Your task to perform on an android device: change your default location settings in chrome Image 0: 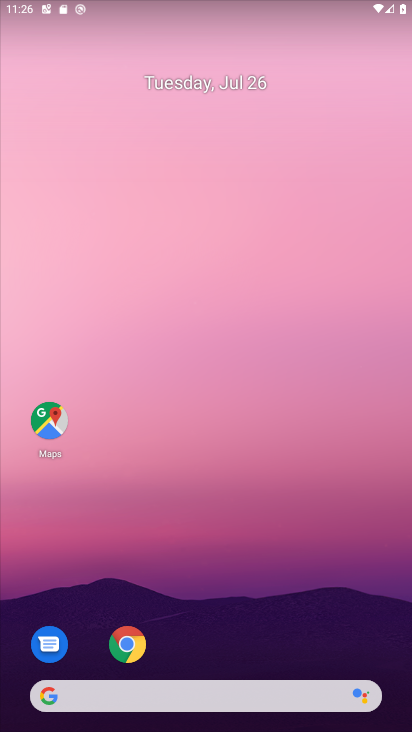
Step 0: click (121, 642)
Your task to perform on an android device: change your default location settings in chrome Image 1: 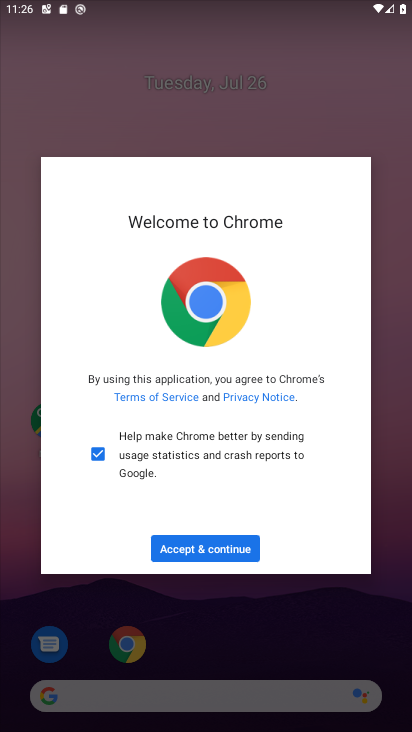
Step 1: click (211, 538)
Your task to perform on an android device: change your default location settings in chrome Image 2: 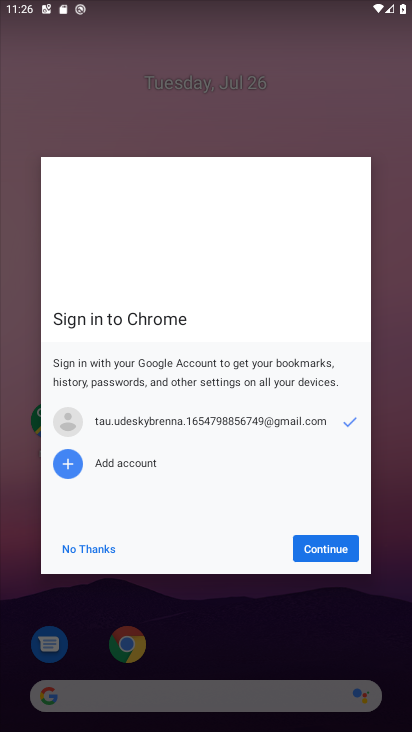
Step 2: click (323, 545)
Your task to perform on an android device: change your default location settings in chrome Image 3: 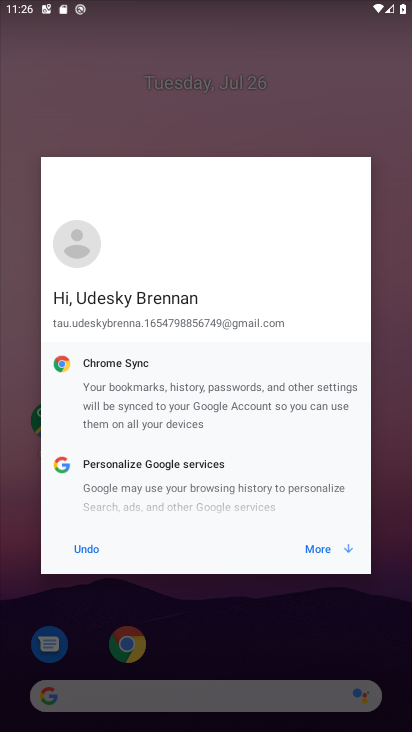
Step 3: click (323, 545)
Your task to perform on an android device: change your default location settings in chrome Image 4: 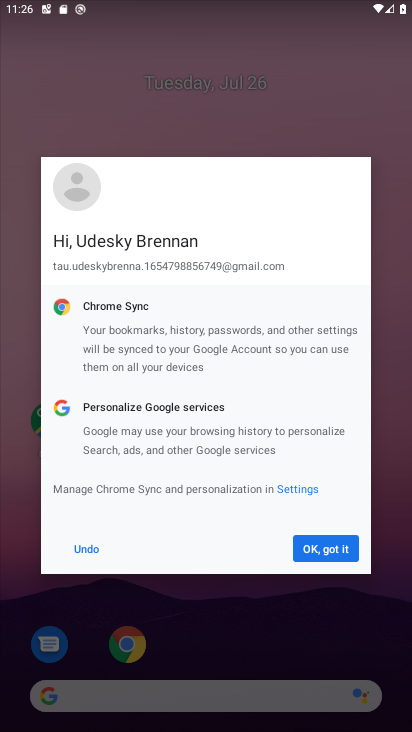
Step 4: click (323, 545)
Your task to perform on an android device: change your default location settings in chrome Image 5: 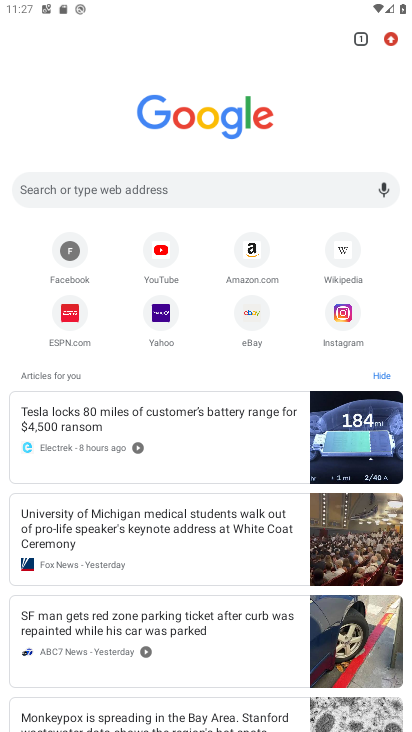
Step 5: click (392, 40)
Your task to perform on an android device: change your default location settings in chrome Image 6: 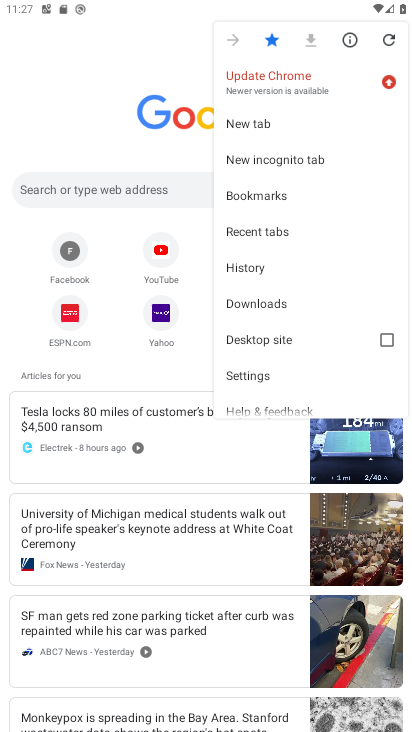
Step 6: click (241, 370)
Your task to perform on an android device: change your default location settings in chrome Image 7: 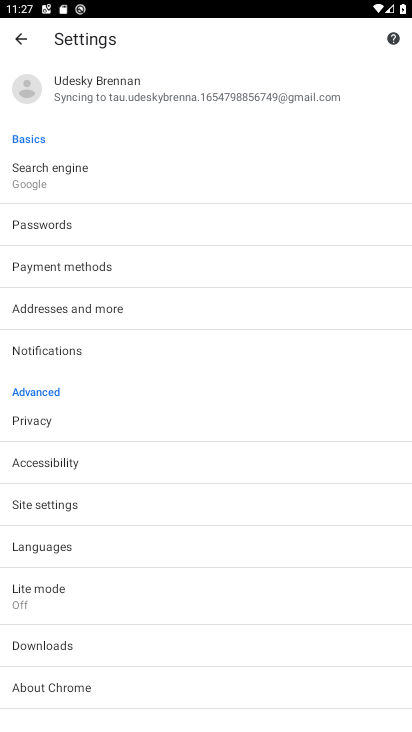
Step 7: drag from (127, 655) to (132, 352)
Your task to perform on an android device: change your default location settings in chrome Image 8: 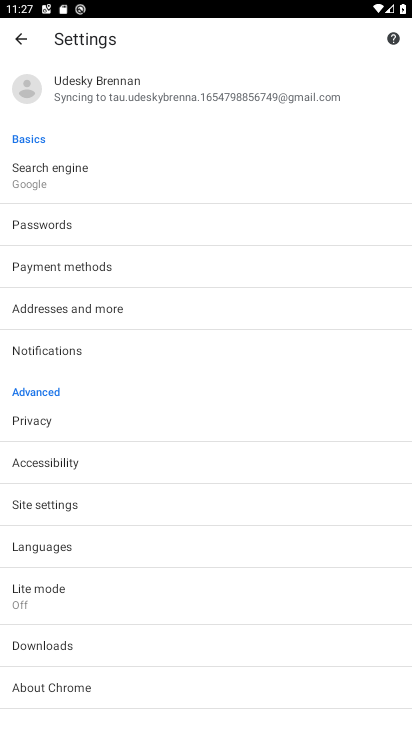
Step 8: click (75, 501)
Your task to perform on an android device: change your default location settings in chrome Image 9: 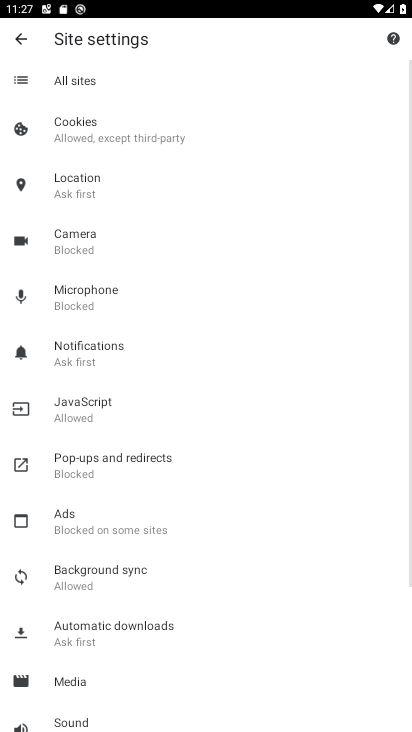
Step 9: click (99, 183)
Your task to perform on an android device: change your default location settings in chrome Image 10: 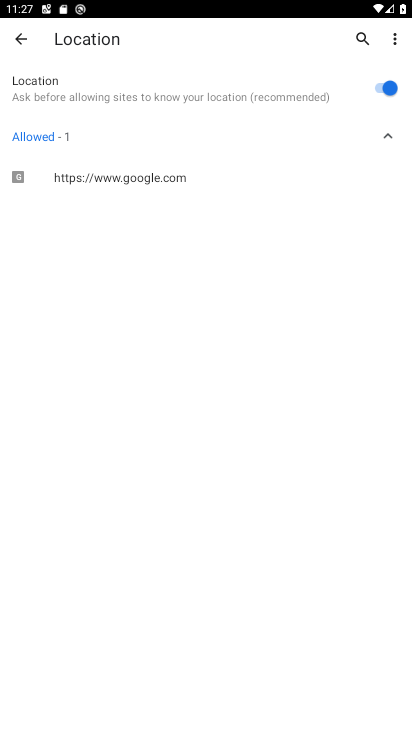
Step 10: click (381, 84)
Your task to perform on an android device: change your default location settings in chrome Image 11: 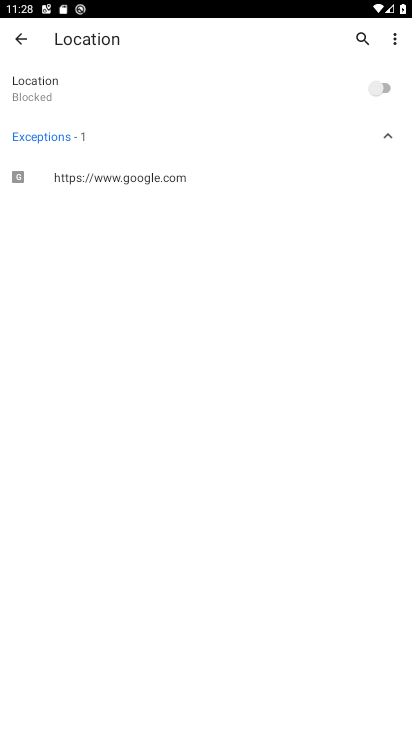
Step 11: task complete